Your task to perform on an android device: What's on my calendar tomorrow? Image 0: 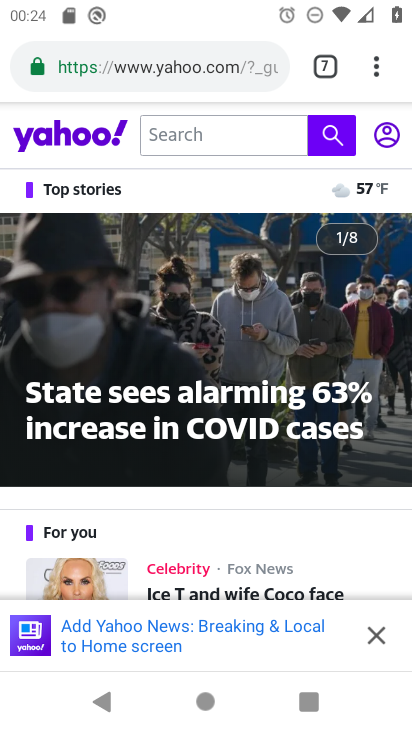
Step 0: press home button
Your task to perform on an android device: What's on my calendar tomorrow? Image 1: 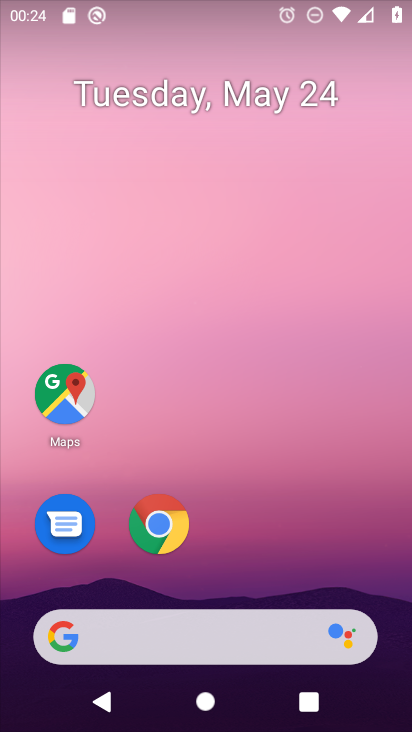
Step 1: drag from (253, 572) to (246, 134)
Your task to perform on an android device: What's on my calendar tomorrow? Image 2: 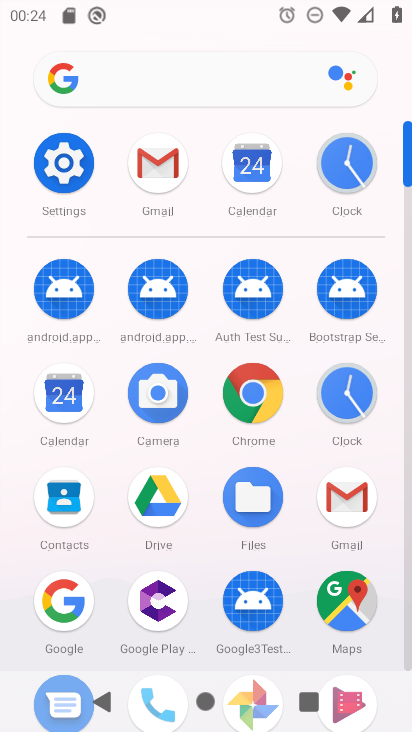
Step 2: click (231, 175)
Your task to perform on an android device: What's on my calendar tomorrow? Image 3: 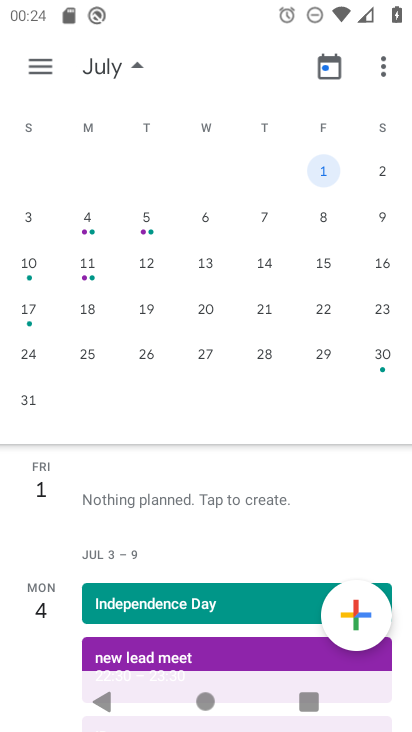
Step 3: drag from (94, 253) to (302, 262)
Your task to perform on an android device: What's on my calendar tomorrow? Image 4: 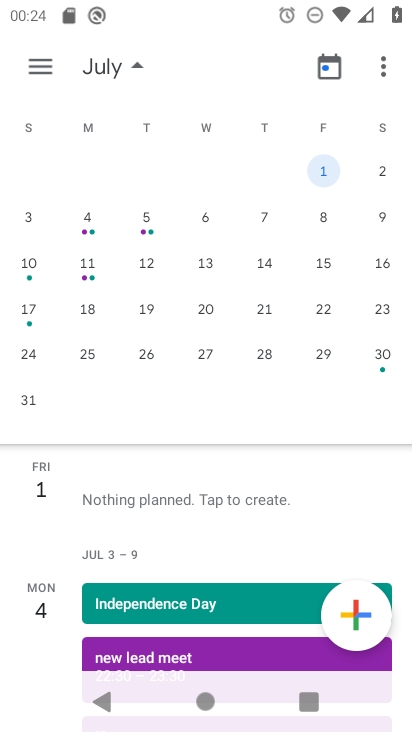
Step 4: drag from (60, 262) to (385, 286)
Your task to perform on an android device: What's on my calendar tomorrow? Image 5: 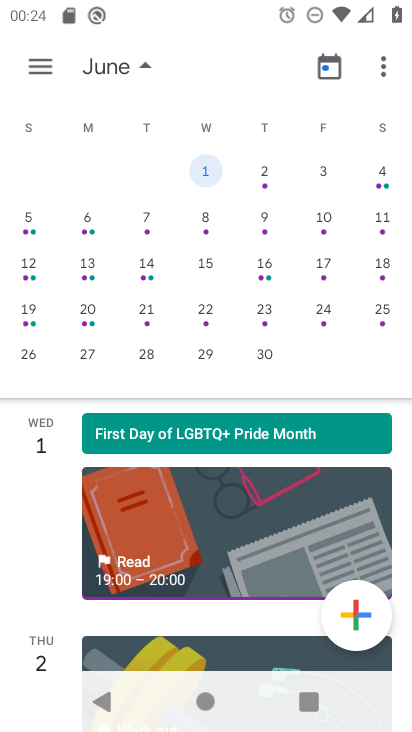
Step 5: drag from (50, 261) to (375, 261)
Your task to perform on an android device: What's on my calendar tomorrow? Image 6: 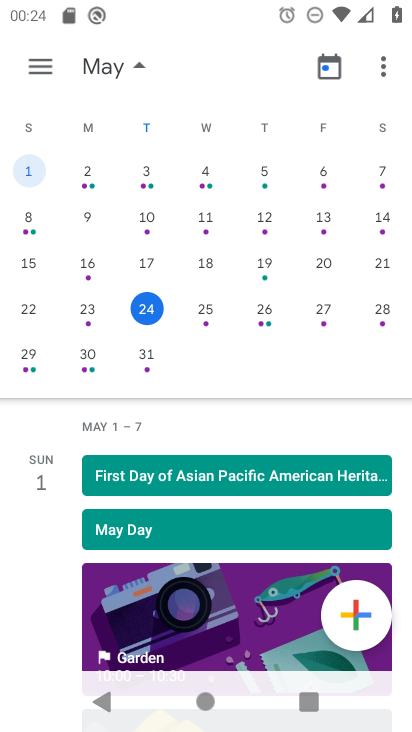
Step 6: click (203, 313)
Your task to perform on an android device: What's on my calendar tomorrow? Image 7: 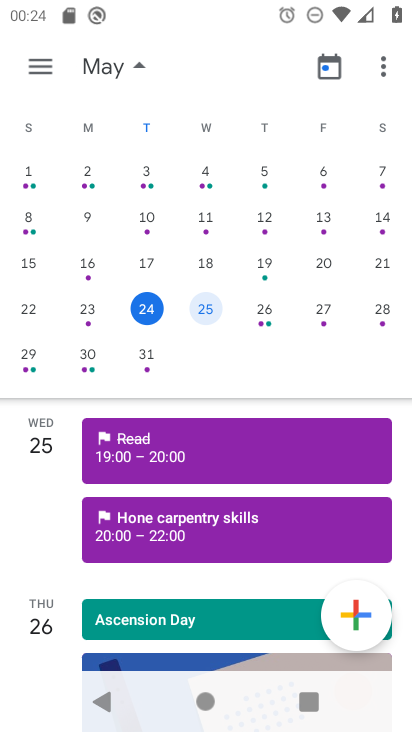
Step 7: task complete